Your task to perform on an android device: toggle javascript in the chrome app Image 0: 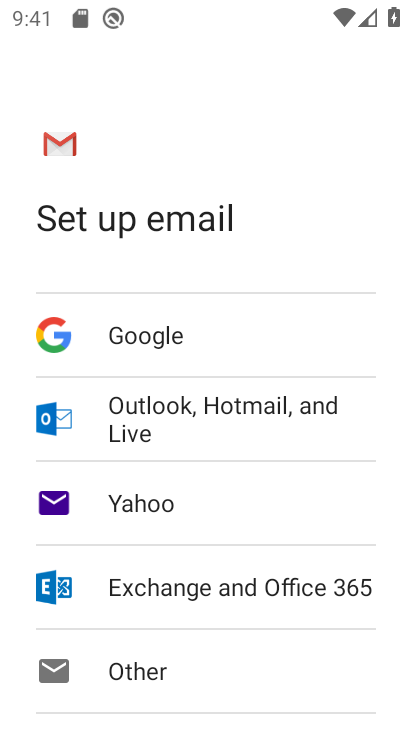
Step 0: press home button
Your task to perform on an android device: toggle javascript in the chrome app Image 1: 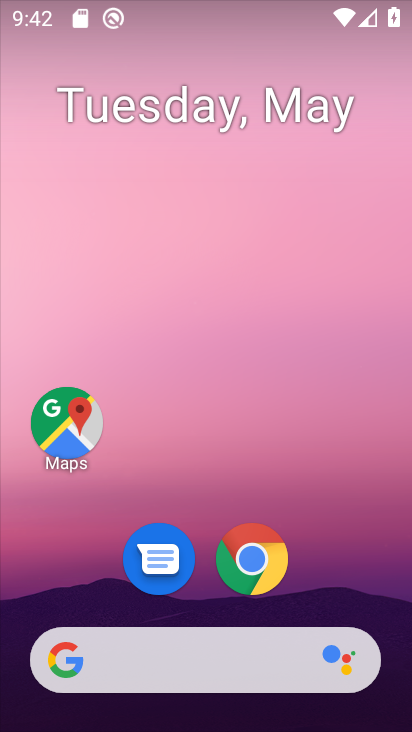
Step 1: drag from (385, 616) to (313, 31)
Your task to perform on an android device: toggle javascript in the chrome app Image 2: 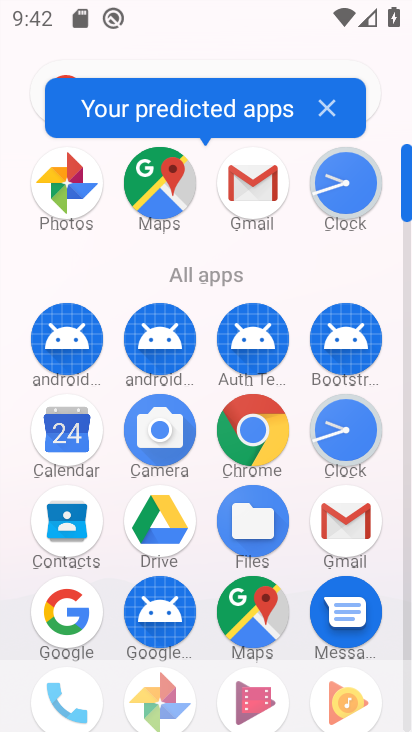
Step 2: click (225, 426)
Your task to perform on an android device: toggle javascript in the chrome app Image 3: 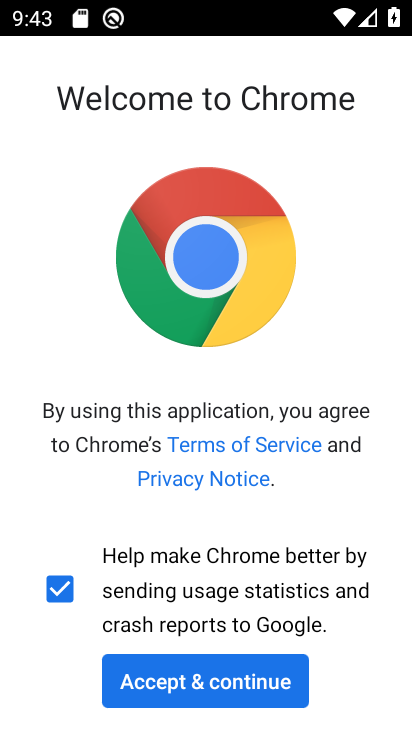
Step 3: click (179, 691)
Your task to perform on an android device: toggle javascript in the chrome app Image 4: 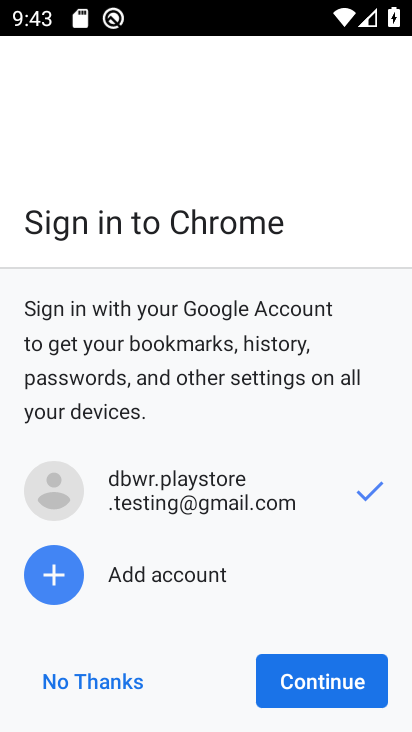
Step 4: click (354, 700)
Your task to perform on an android device: toggle javascript in the chrome app Image 5: 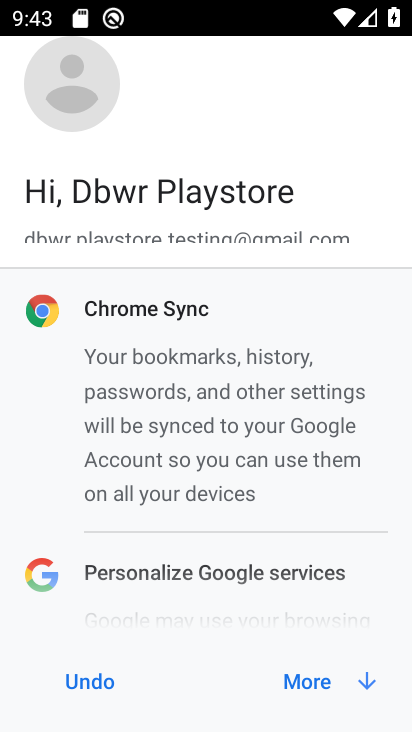
Step 5: click (329, 677)
Your task to perform on an android device: toggle javascript in the chrome app Image 6: 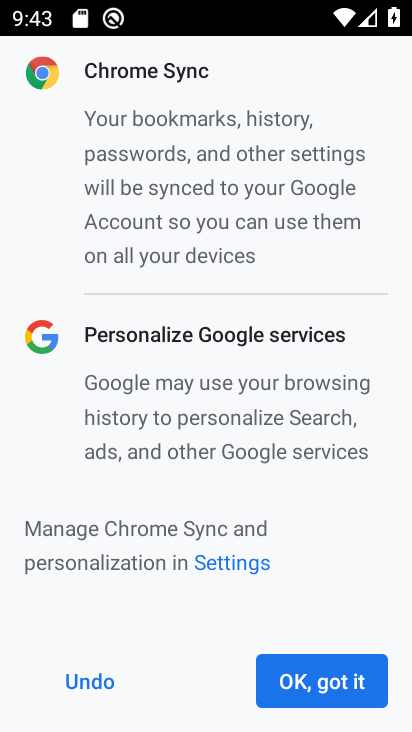
Step 6: click (328, 677)
Your task to perform on an android device: toggle javascript in the chrome app Image 7: 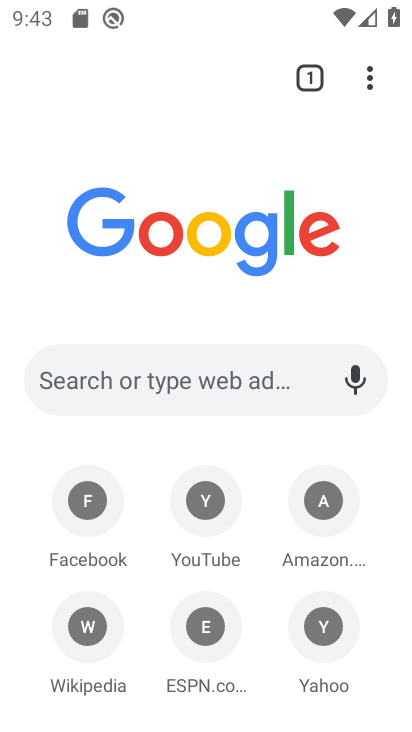
Step 7: click (370, 78)
Your task to perform on an android device: toggle javascript in the chrome app Image 8: 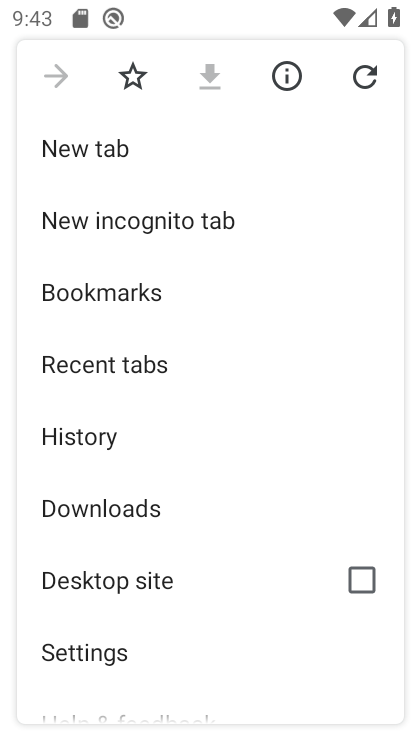
Step 8: click (135, 650)
Your task to perform on an android device: toggle javascript in the chrome app Image 9: 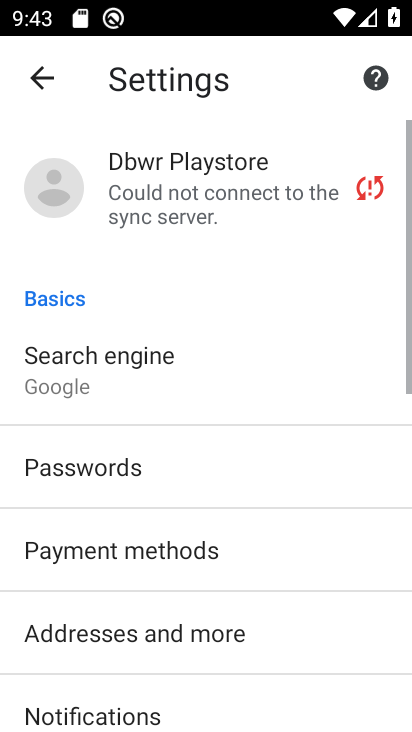
Step 9: drag from (135, 650) to (283, 126)
Your task to perform on an android device: toggle javascript in the chrome app Image 10: 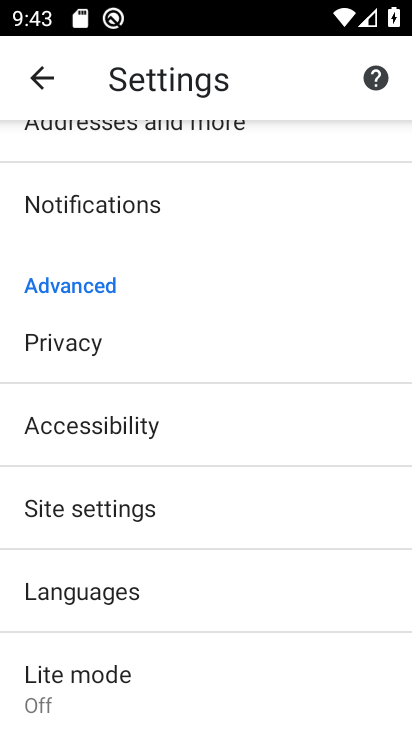
Step 10: click (170, 523)
Your task to perform on an android device: toggle javascript in the chrome app Image 11: 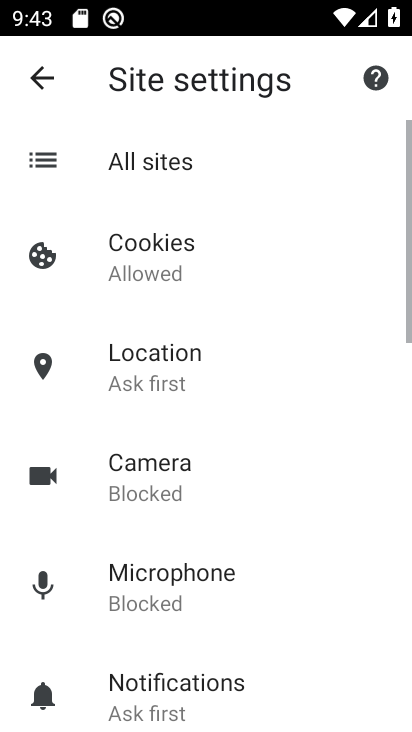
Step 11: drag from (183, 670) to (118, 228)
Your task to perform on an android device: toggle javascript in the chrome app Image 12: 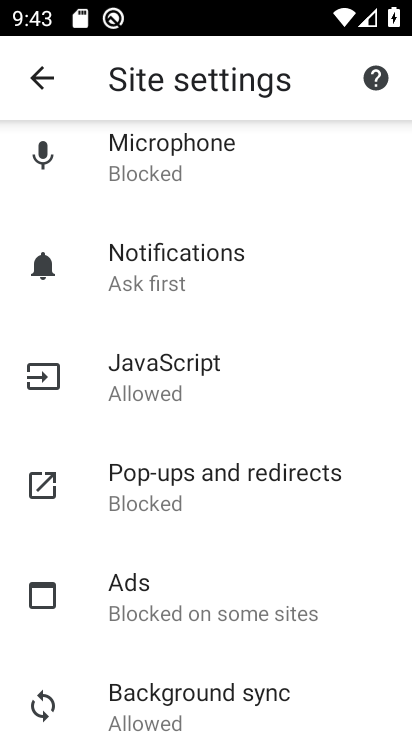
Step 12: click (161, 361)
Your task to perform on an android device: toggle javascript in the chrome app Image 13: 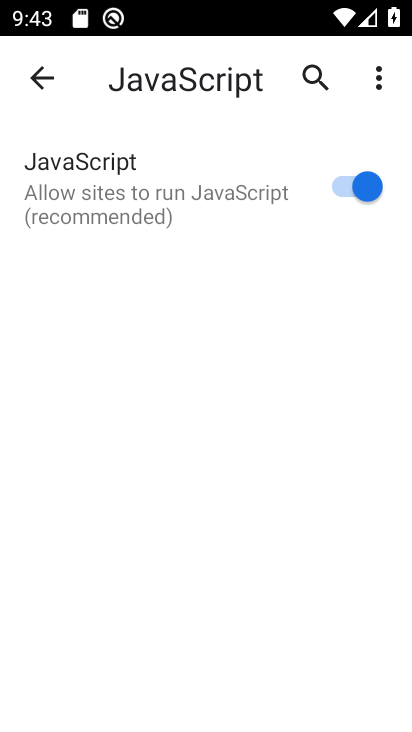
Step 13: click (359, 201)
Your task to perform on an android device: toggle javascript in the chrome app Image 14: 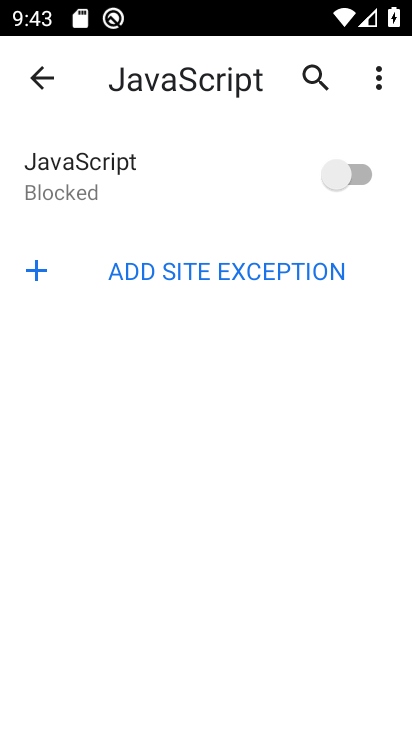
Step 14: task complete